Your task to perform on an android device: turn on showing notifications on the lock screen Image 0: 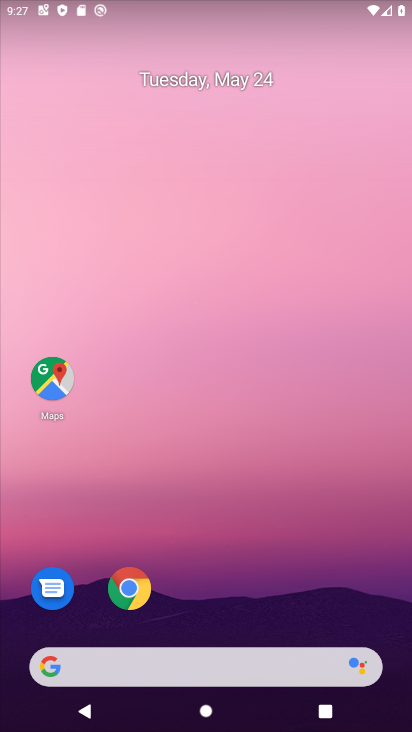
Step 0: drag from (244, 534) to (221, 61)
Your task to perform on an android device: turn on showing notifications on the lock screen Image 1: 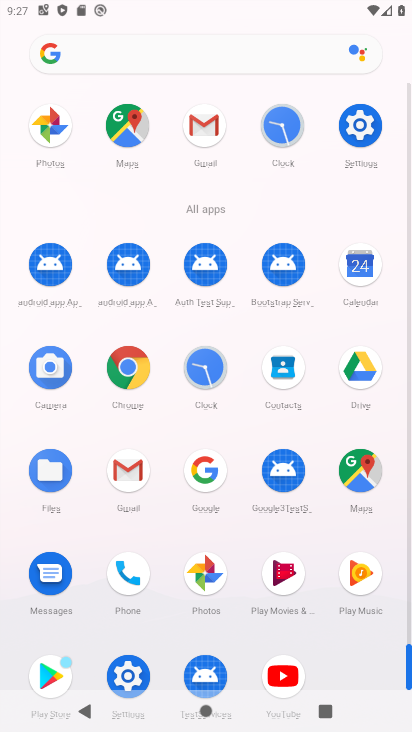
Step 1: drag from (9, 548) to (18, 221)
Your task to perform on an android device: turn on showing notifications on the lock screen Image 2: 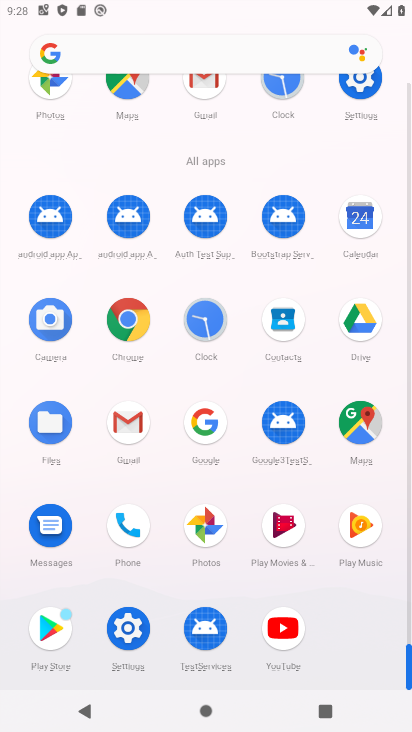
Step 2: click (128, 624)
Your task to perform on an android device: turn on showing notifications on the lock screen Image 3: 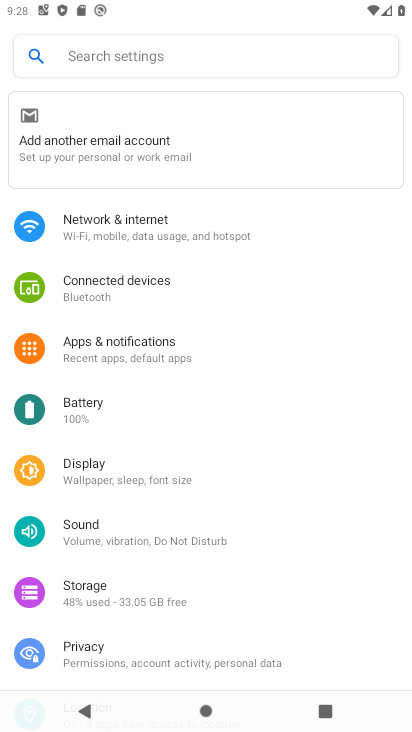
Step 3: drag from (218, 528) to (219, 247)
Your task to perform on an android device: turn on showing notifications on the lock screen Image 4: 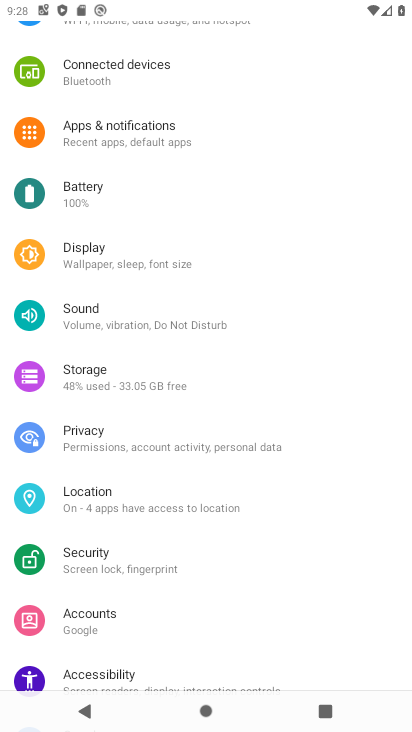
Step 4: drag from (207, 542) to (201, 159)
Your task to perform on an android device: turn on showing notifications on the lock screen Image 5: 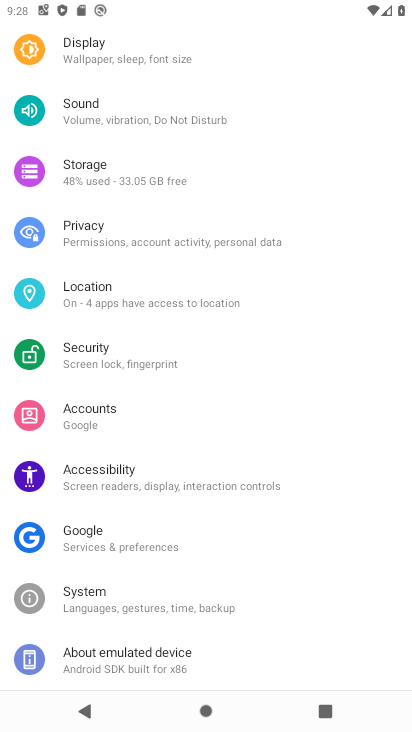
Step 5: drag from (204, 253) to (209, 597)
Your task to perform on an android device: turn on showing notifications on the lock screen Image 6: 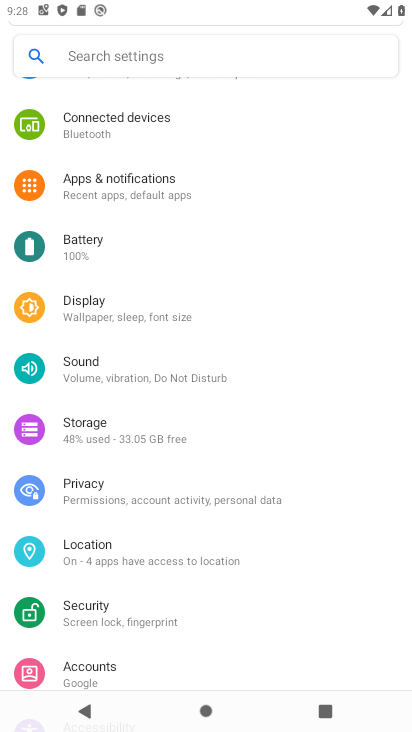
Step 6: click (152, 181)
Your task to perform on an android device: turn on showing notifications on the lock screen Image 7: 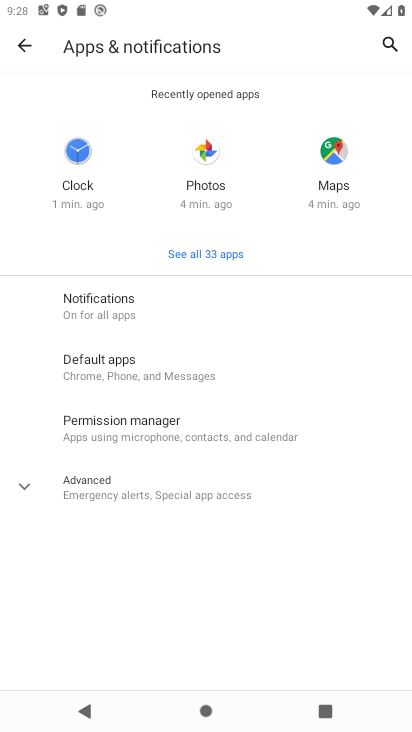
Step 7: click (29, 483)
Your task to perform on an android device: turn on showing notifications on the lock screen Image 8: 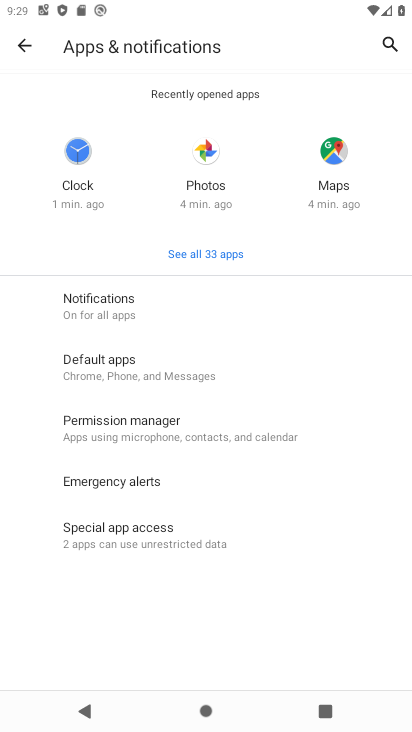
Step 8: click (123, 302)
Your task to perform on an android device: turn on showing notifications on the lock screen Image 9: 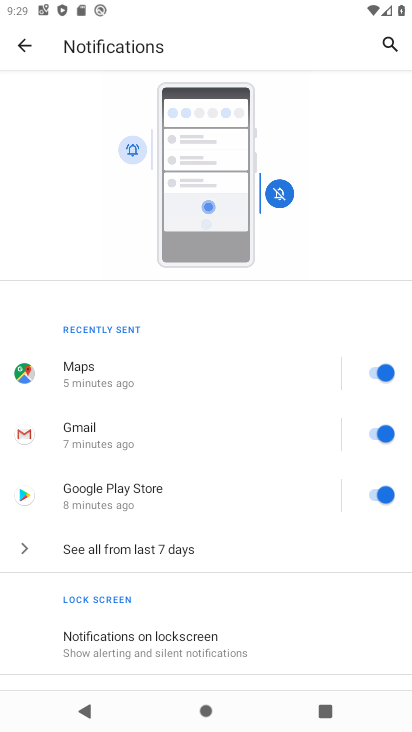
Step 9: drag from (232, 556) to (262, 96)
Your task to perform on an android device: turn on showing notifications on the lock screen Image 10: 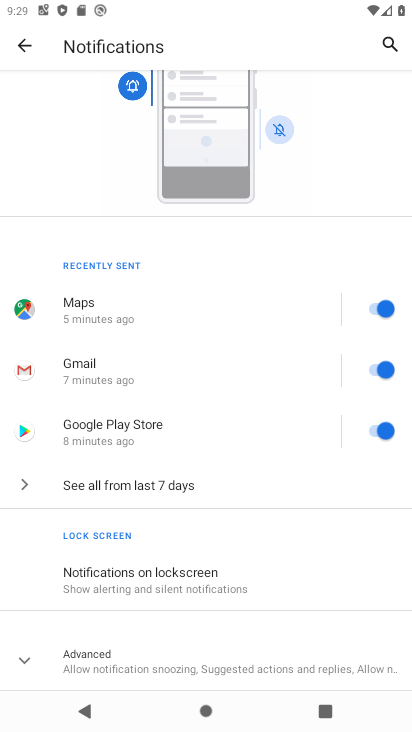
Step 10: click (49, 646)
Your task to perform on an android device: turn on showing notifications on the lock screen Image 11: 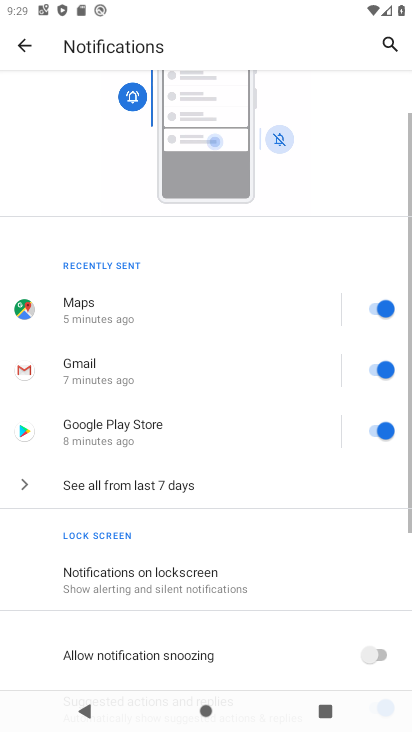
Step 11: drag from (250, 532) to (289, 169)
Your task to perform on an android device: turn on showing notifications on the lock screen Image 12: 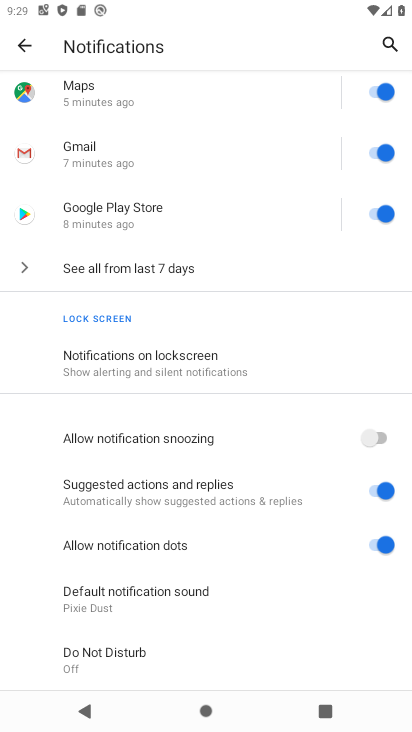
Step 12: click (197, 352)
Your task to perform on an android device: turn on showing notifications on the lock screen Image 13: 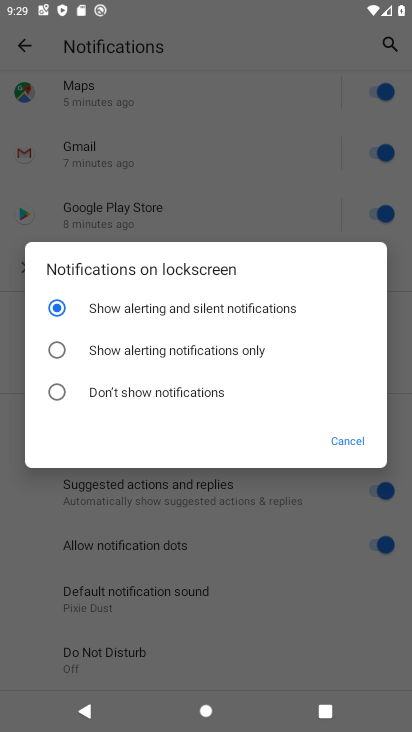
Step 13: click (155, 299)
Your task to perform on an android device: turn on showing notifications on the lock screen Image 14: 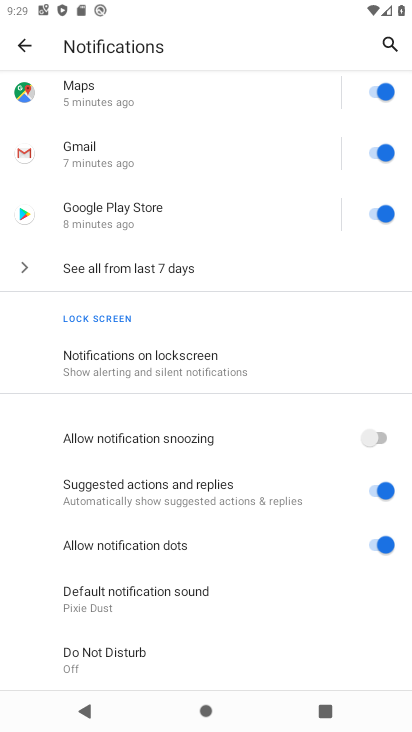
Step 14: task complete